Your task to perform on an android device: change the clock display to digital Image 0: 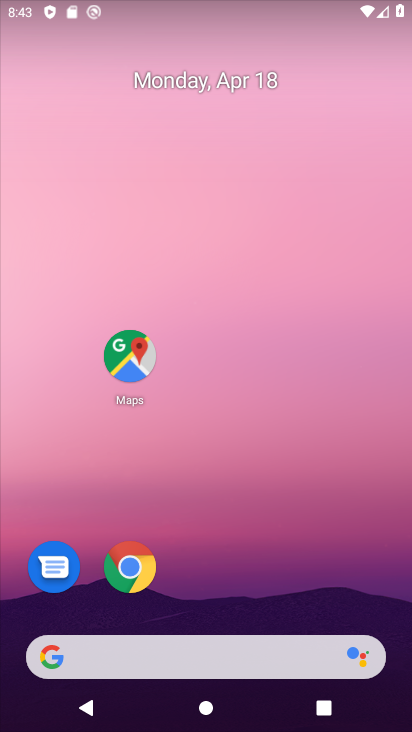
Step 0: drag from (251, 687) to (235, 255)
Your task to perform on an android device: change the clock display to digital Image 1: 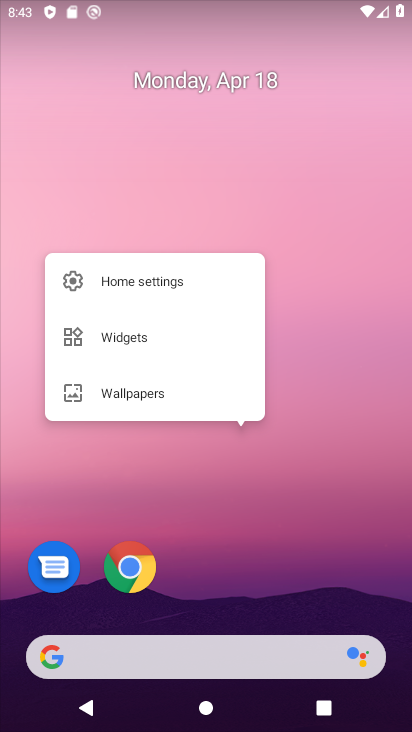
Step 1: click (363, 493)
Your task to perform on an android device: change the clock display to digital Image 2: 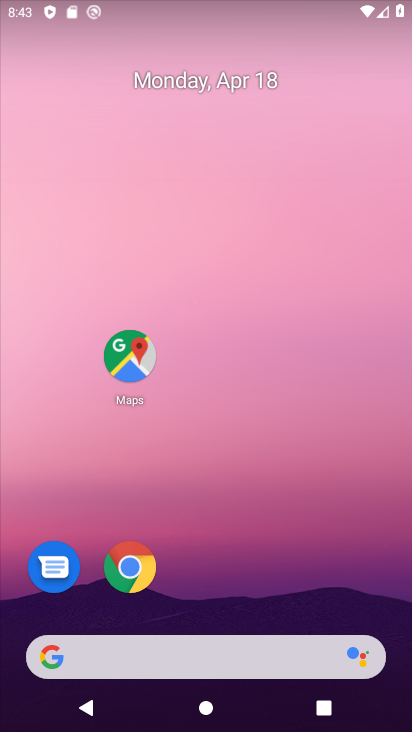
Step 2: drag from (286, 687) to (253, 245)
Your task to perform on an android device: change the clock display to digital Image 3: 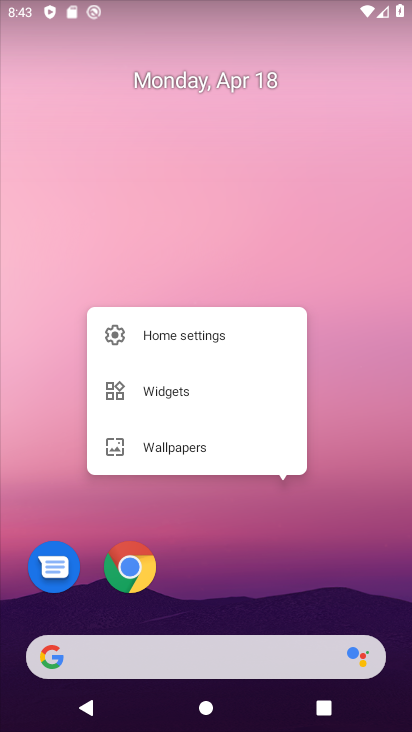
Step 3: click (250, 242)
Your task to perform on an android device: change the clock display to digital Image 4: 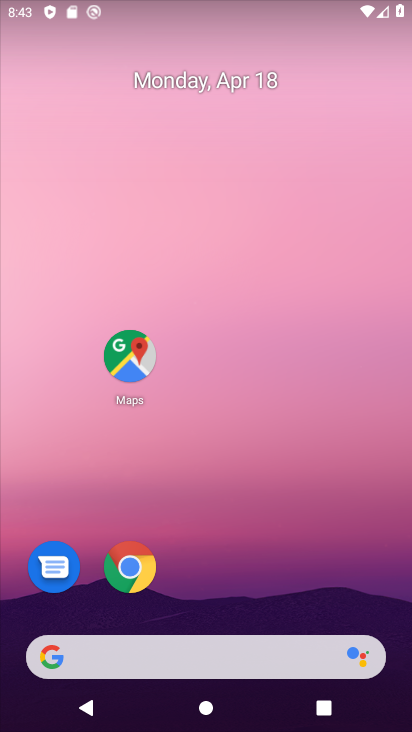
Step 4: drag from (263, 678) to (369, 151)
Your task to perform on an android device: change the clock display to digital Image 5: 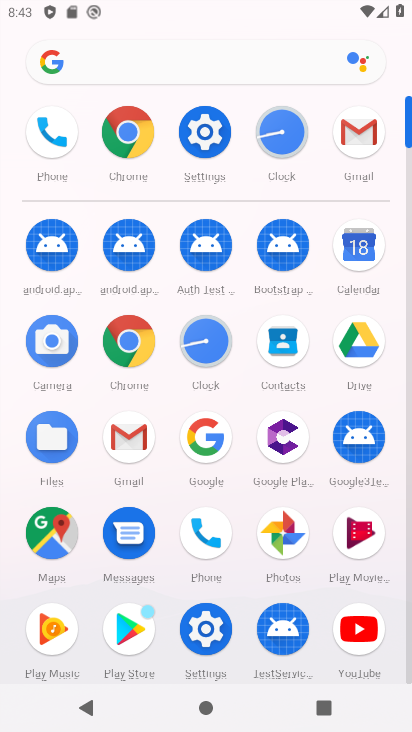
Step 5: click (212, 349)
Your task to perform on an android device: change the clock display to digital Image 6: 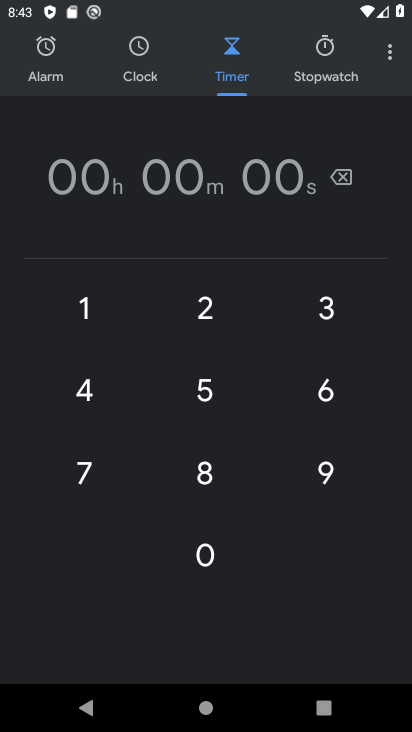
Step 6: click (391, 66)
Your task to perform on an android device: change the clock display to digital Image 7: 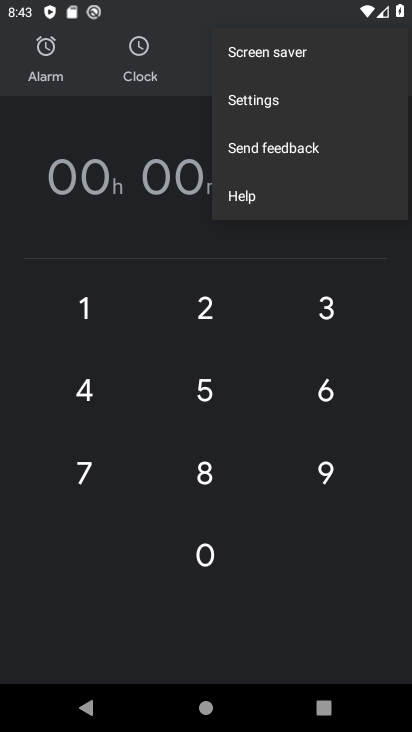
Step 7: click (275, 104)
Your task to perform on an android device: change the clock display to digital Image 8: 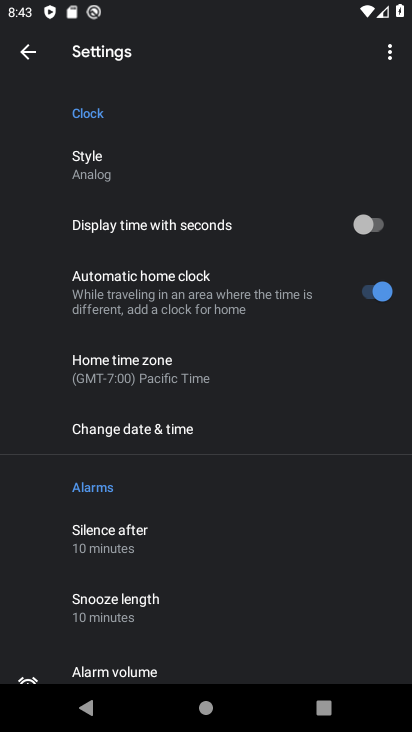
Step 8: click (155, 187)
Your task to perform on an android device: change the clock display to digital Image 9: 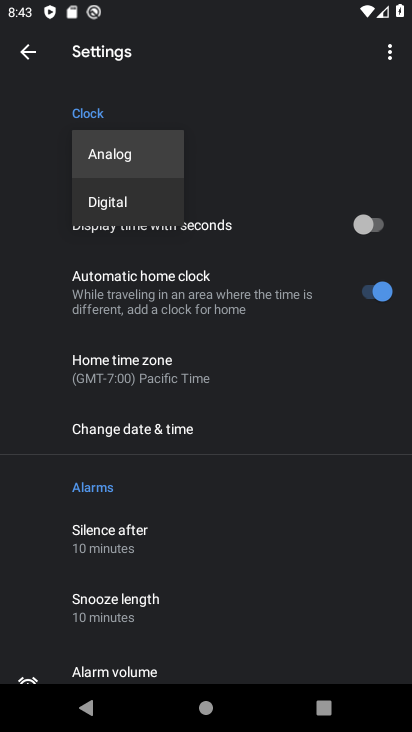
Step 9: click (141, 197)
Your task to perform on an android device: change the clock display to digital Image 10: 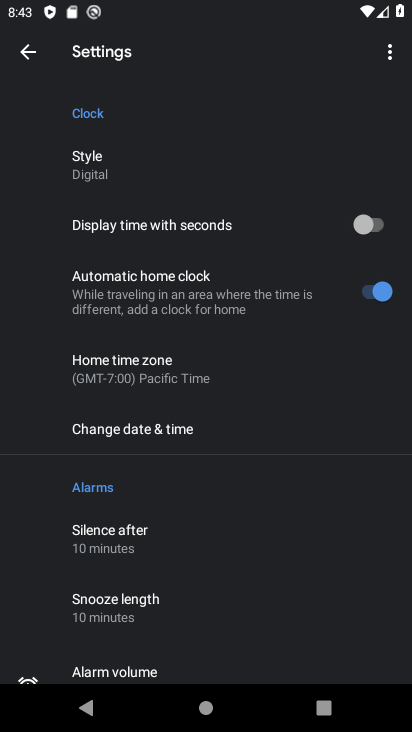
Step 10: task complete